Your task to perform on an android device: Open the Play Movies app and select the watchlist tab. Image 0: 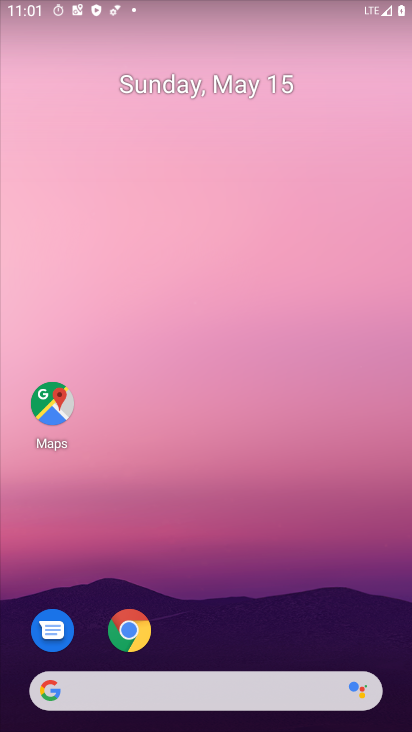
Step 0: drag from (241, 596) to (260, 59)
Your task to perform on an android device: Open the Play Movies app and select the watchlist tab. Image 1: 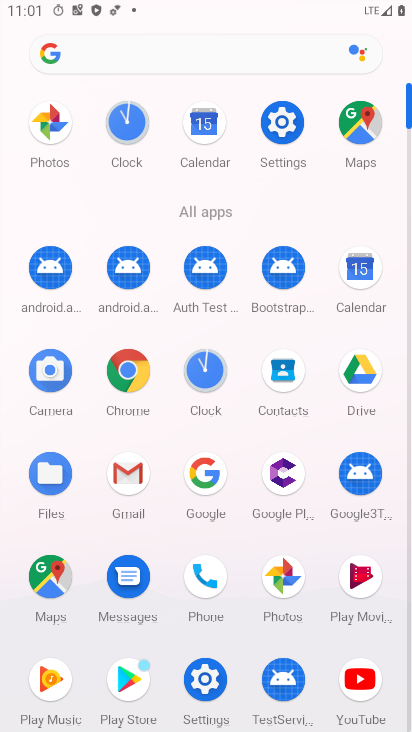
Step 1: click (366, 577)
Your task to perform on an android device: Open the Play Movies app and select the watchlist tab. Image 2: 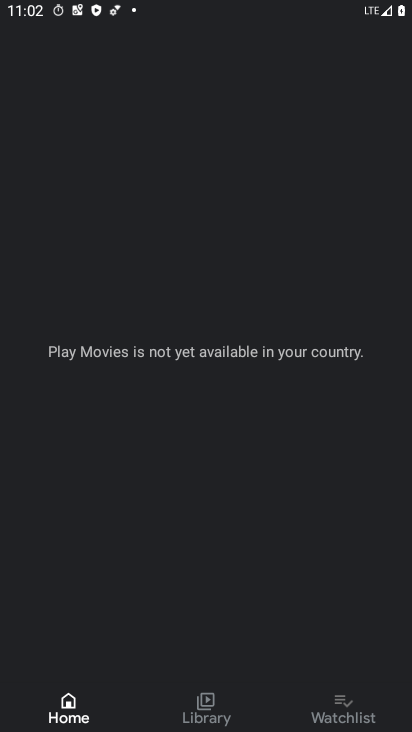
Step 2: click (373, 716)
Your task to perform on an android device: Open the Play Movies app and select the watchlist tab. Image 3: 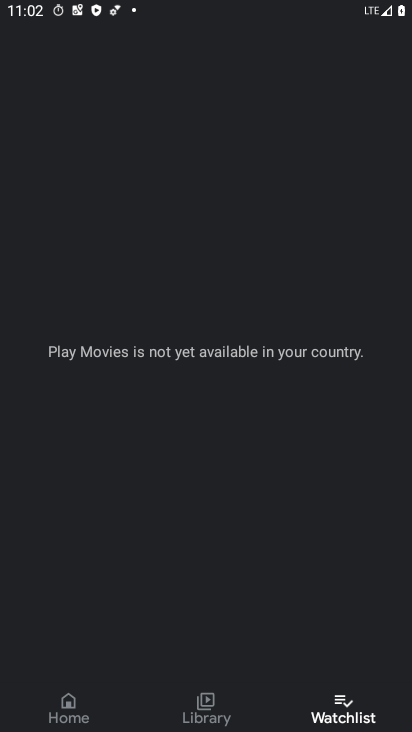
Step 3: task complete